Your task to perform on an android device: Search for 12ft 120W LED tube light on home depot Image 0: 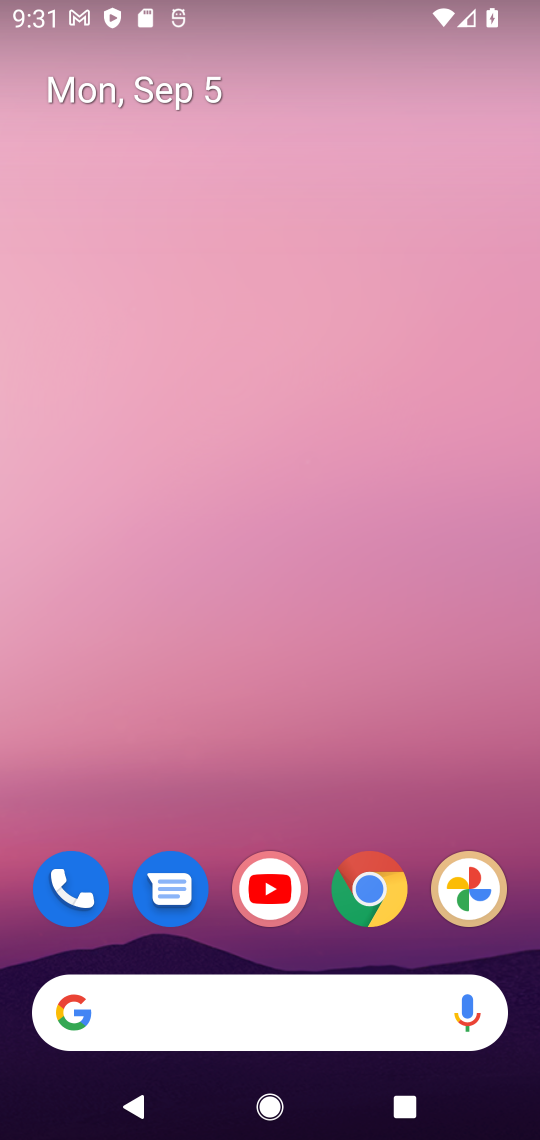
Step 0: click (229, 1017)
Your task to perform on an android device: Search for 12ft 120W LED tube light on home depot Image 1: 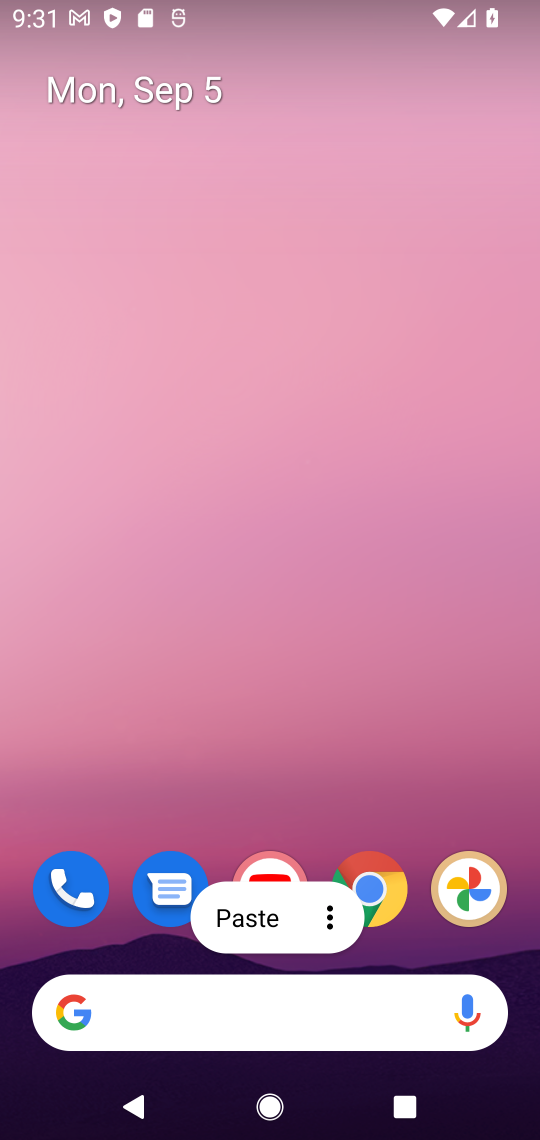
Step 1: click (229, 1017)
Your task to perform on an android device: Search for 12ft 120W LED tube light on home depot Image 2: 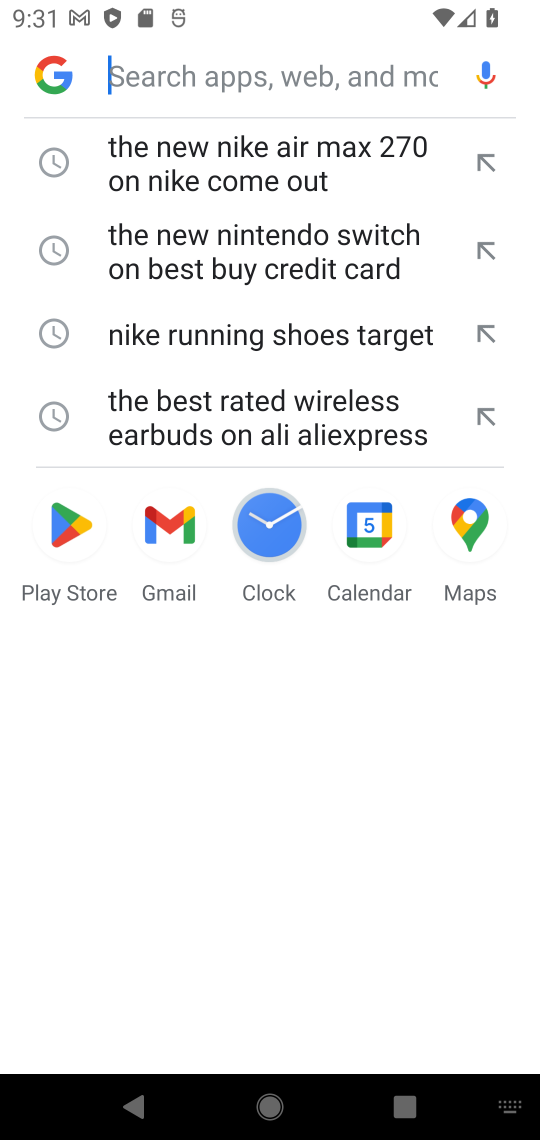
Step 2: type " 12ft 120W LED tube light on home depot"
Your task to perform on an android device: Search for 12ft 120W LED tube light on home depot Image 3: 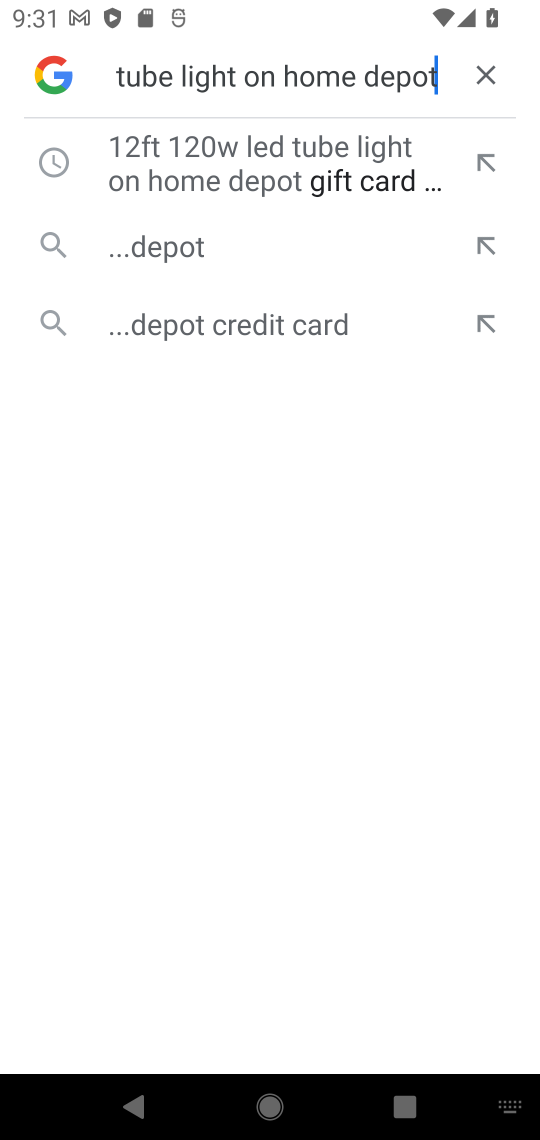
Step 3: click (164, 244)
Your task to perform on an android device: Search for 12ft 120W LED tube light on home depot Image 4: 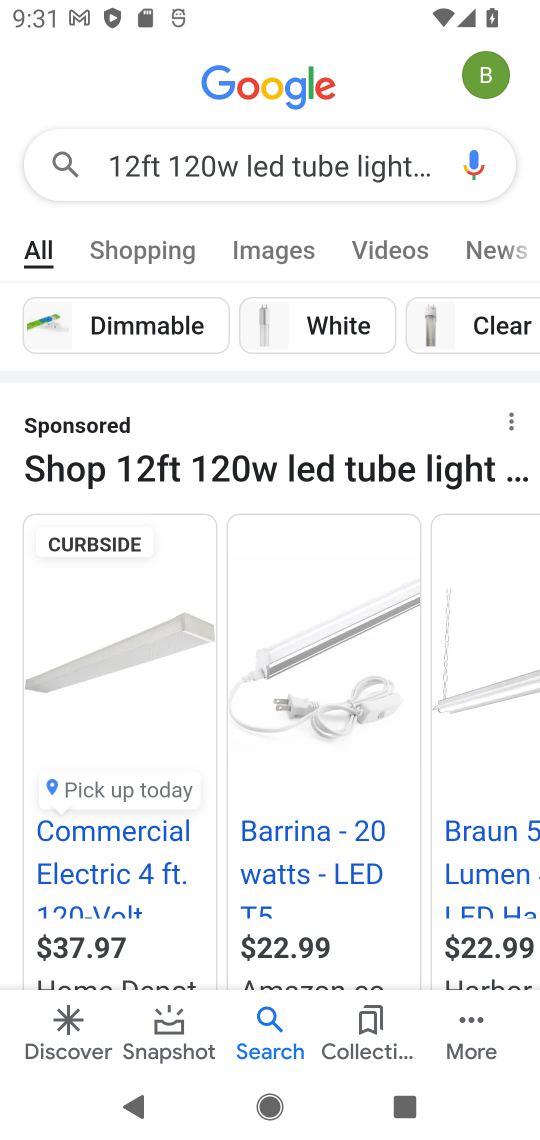
Step 4: click (274, 421)
Your task to perform on an android device: Search for 12ft 120W LED tube light on home depot Image 5: 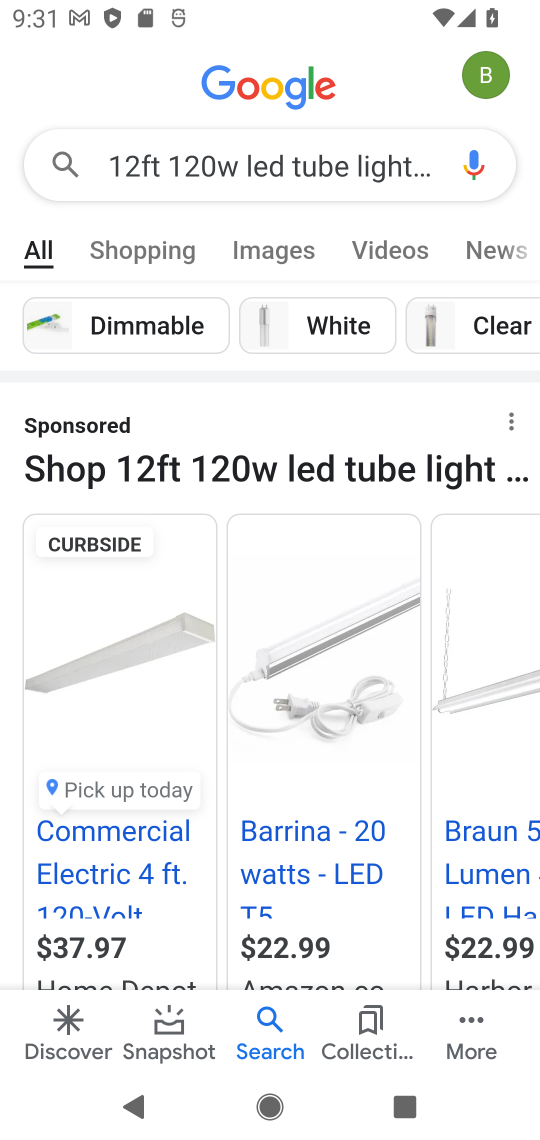
Step 5: task complete